Your task to perform on an android device: toggle show notifications on the lock screen Image 0: 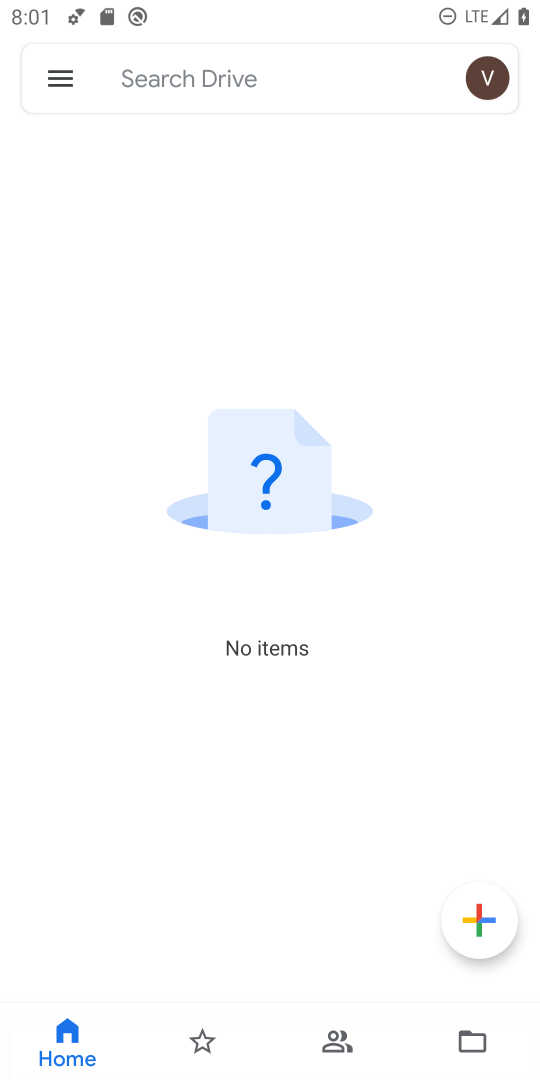
Step 0: press home button
Your task to perform on an android device: toggle show notifications on the lock screen Image 1: 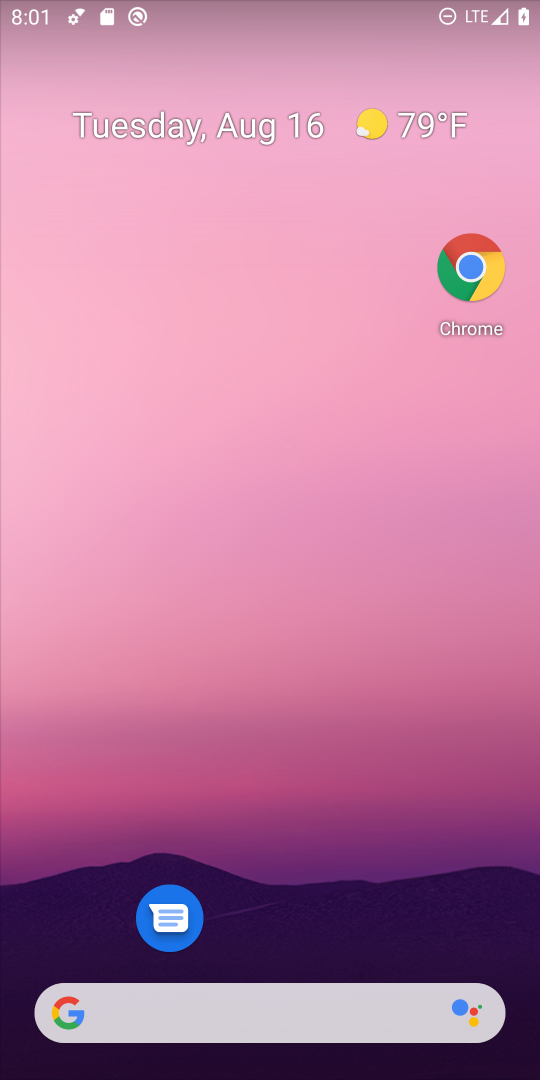
Step 1: drag from (356, 959) to (186, 66)
Your task to perform on an android device: toggle show notifications on the lock screen Image 2: 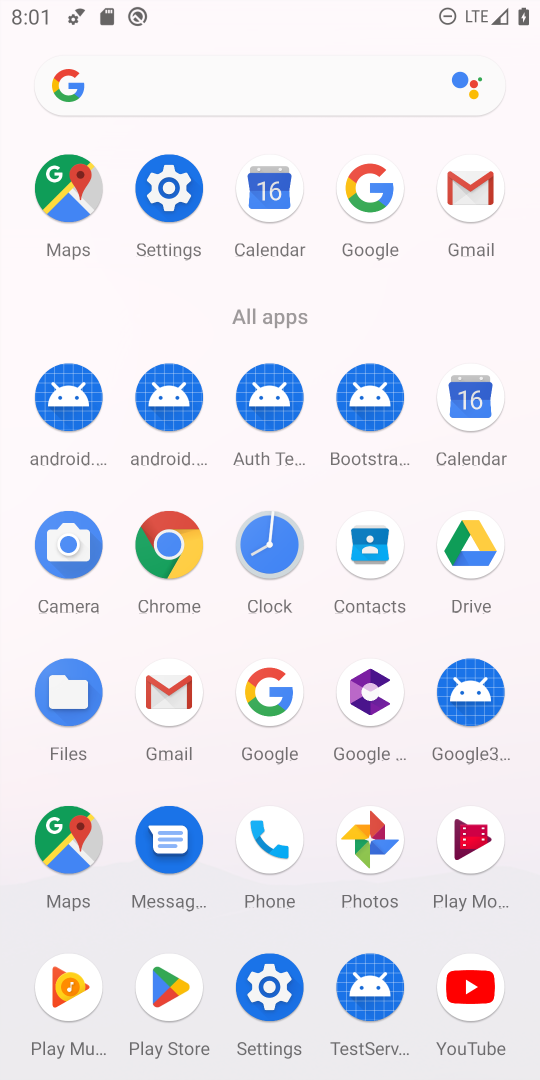
Step 2: click (178, 212)
Your task to perform on an android device: toggle show notifications on the lock screen Image 3: 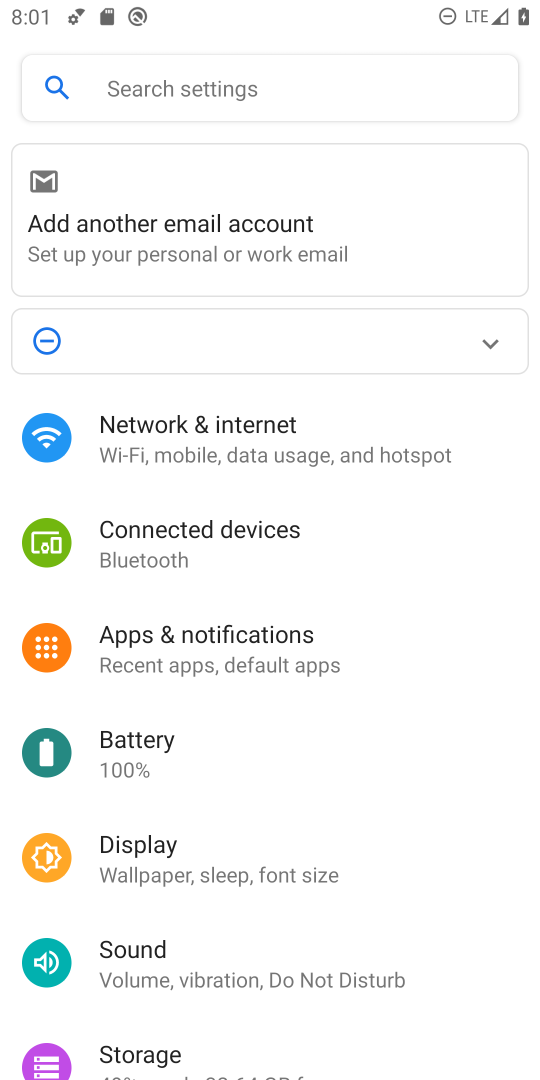
Step 3: click (182, 667)
Your task to perform on an android device: toggle show notifications on the lock screen Image 4: 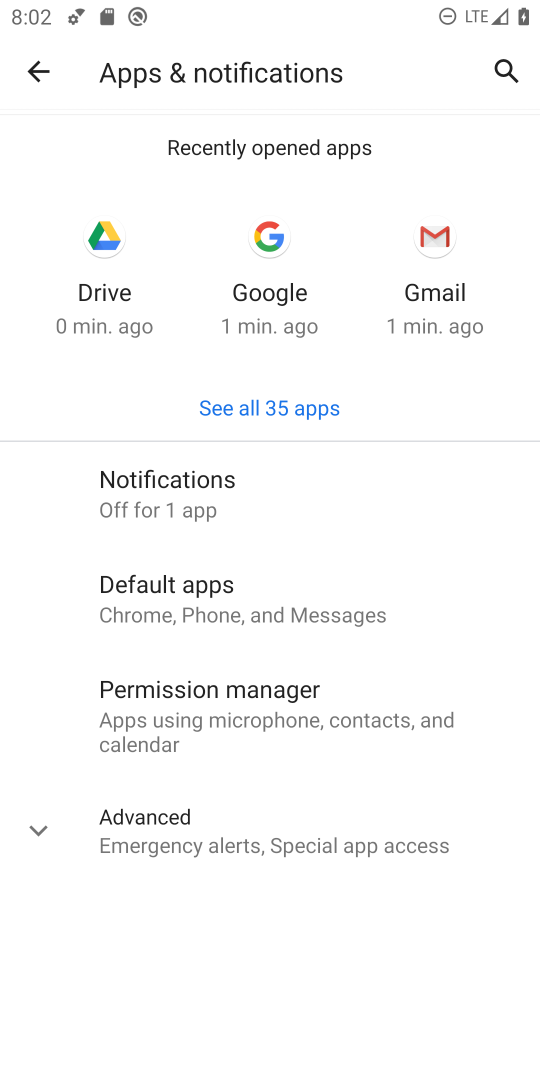
Step 4: click (184, 501)
Your task to perform on an android device: toggle show notifications on the lock screen Image 5: 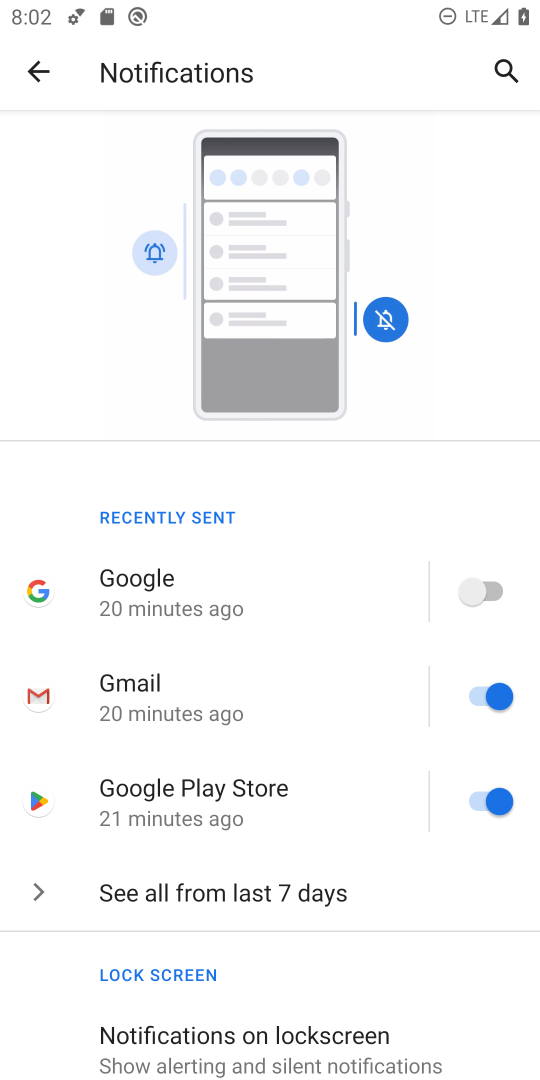
Step 5: click (222, 1061)
Your task to perform on an android device: toggle show notifications on the lock screen Image 6: 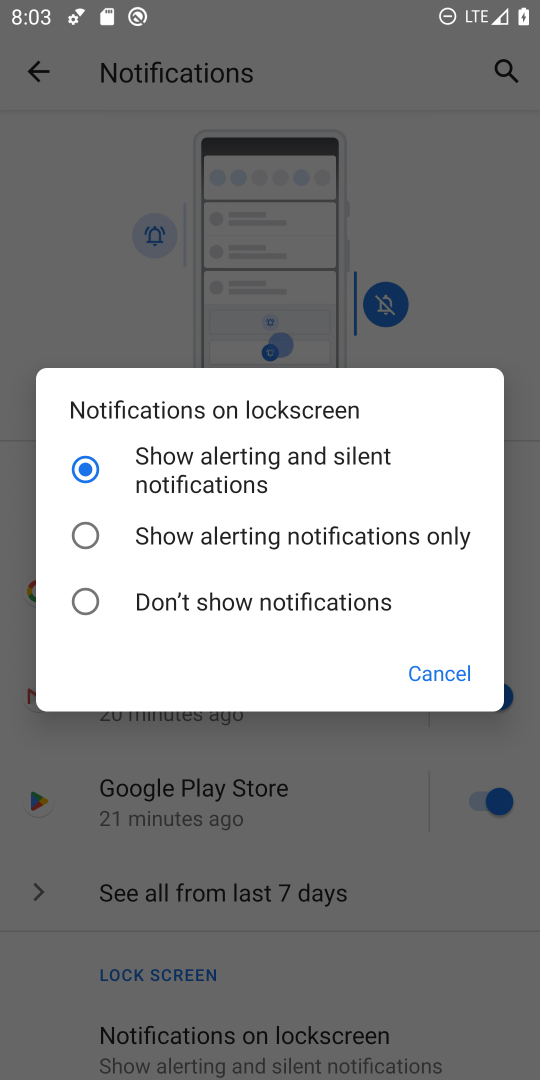
Step 6: click (123, 594)
Your task to perform on an android device: toggle show notifications on the lock screen Image 7: 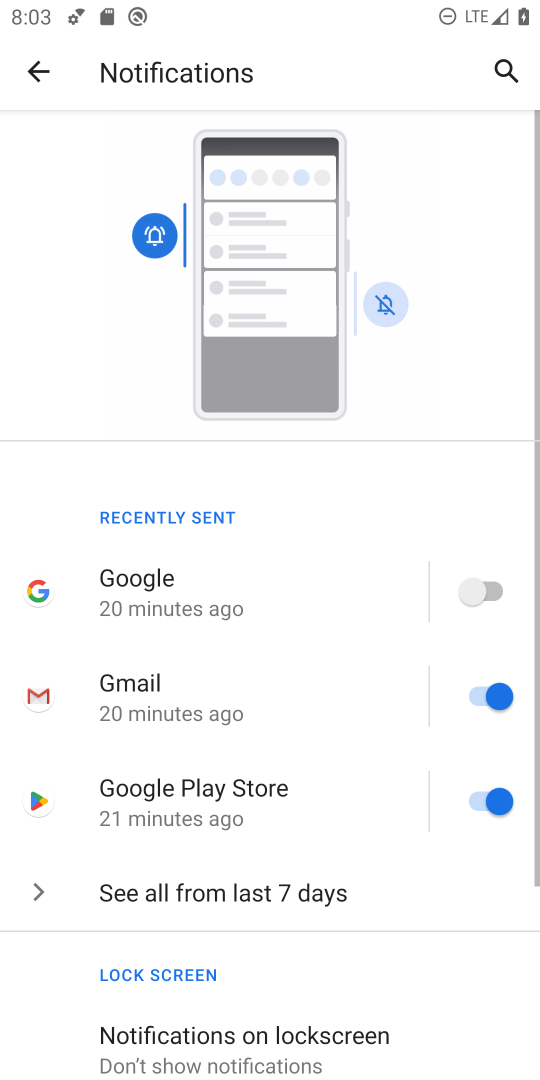
Step 7: task complete